Your task to perform on an android device: change keyboard looks Image 0: 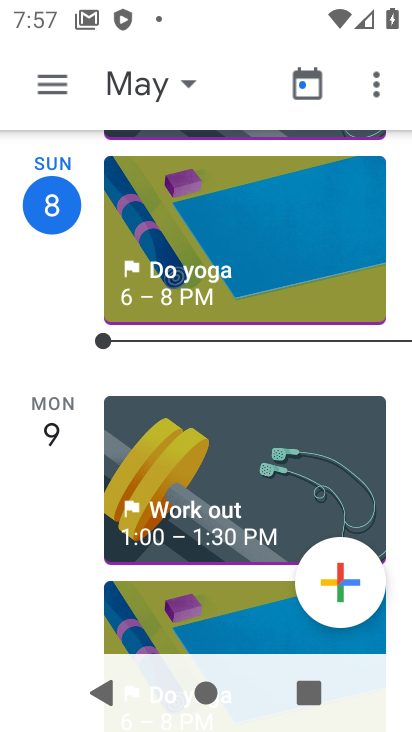
Step 0: press back button
Your task to perform on an android device: change keyboard looks Image 1: 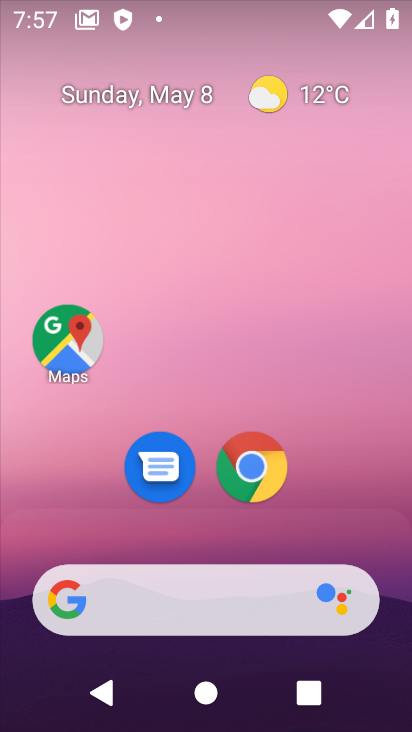
Step 1: drag from (234, 527) to (291, 86)
Your task to perform on an android device: change keyboard looks Image 2: 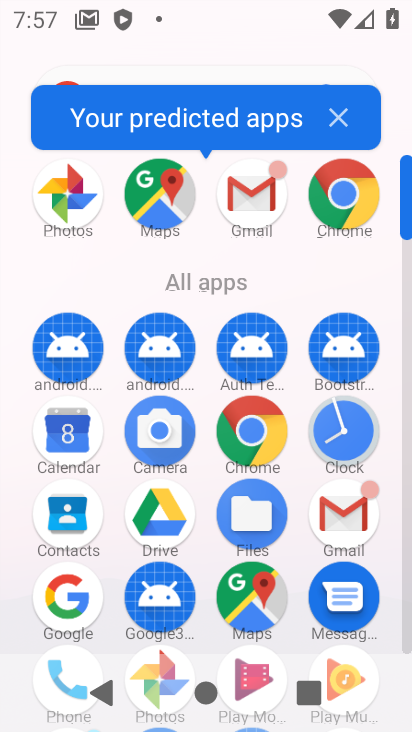
Step 2: drag from (193, 610) to (295, 76)
Your task to perform on an android device: change keyboard looks Image 3: 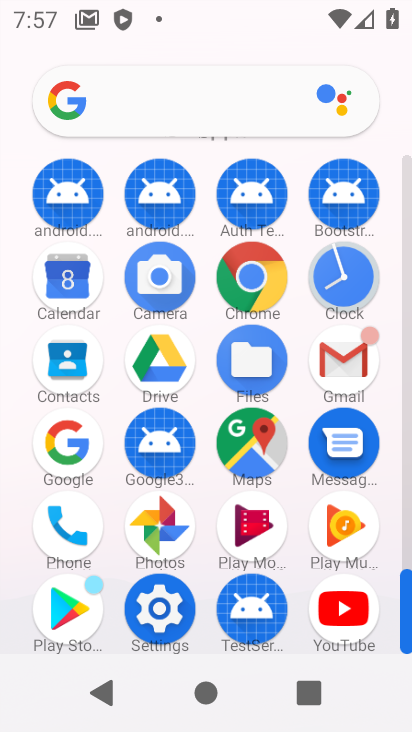
Step 3: click (151, 603)
Your task to perform on an android device: change keyboard looks Image 4: 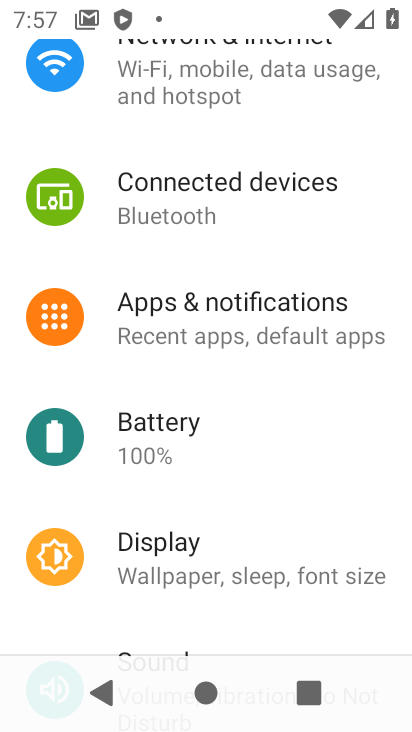
Step 4: drag from (152, 601) to (285, 56)
Your task to perform on an android device: change keyboard looks Image 5: 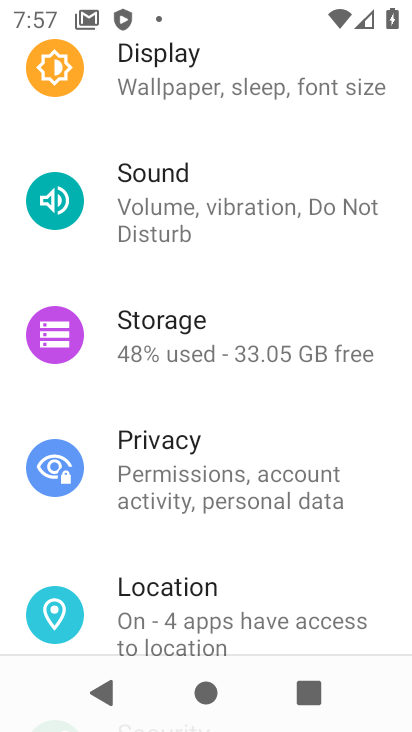
Step 5: drag from (216, 636) to (318, 82)
Your task to perform on an android device: change keyboard looks Image 6: 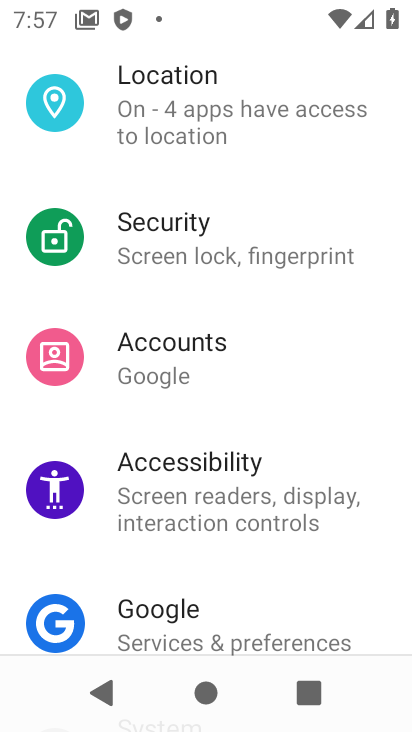
Step 6: drag from (185, 605) to (298, 38)
Your task to perform on an android device: change keyboard looks Image 7: 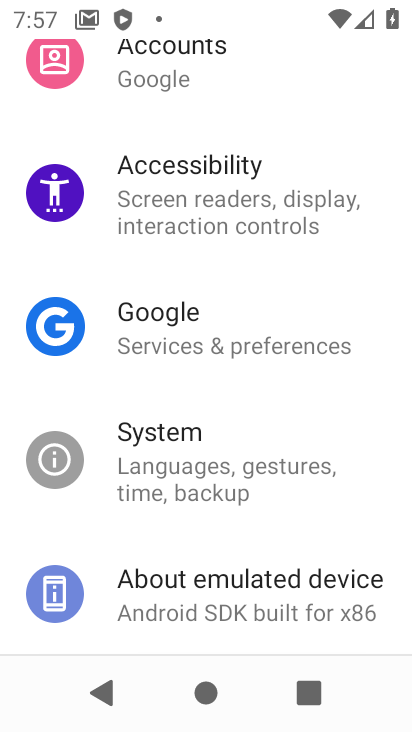
Step 7: drag from (153, 594) to (247, 39)
Your task to perform on an android device: change keyboard looks Image 8: 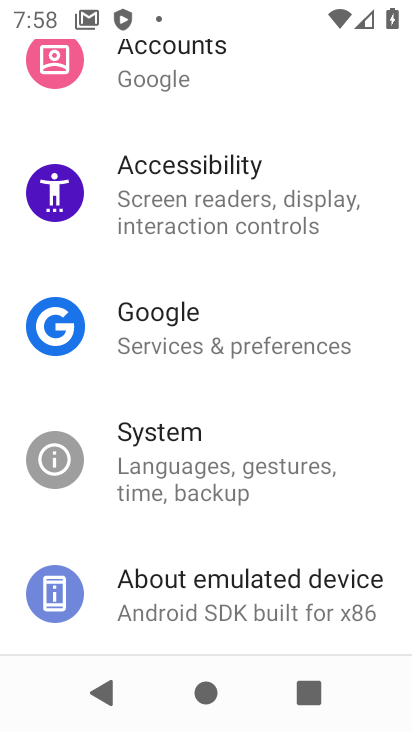
Step 8: click (181, 457)
Your task to perform on an android device: change keyboard looks Image 9: 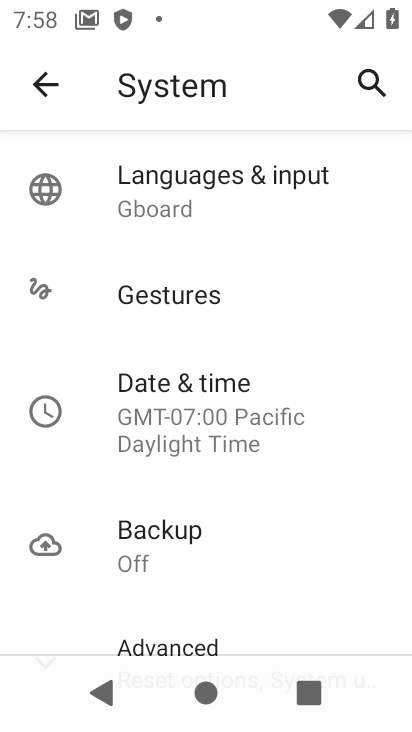
Step 9: click (221, 193)
Your task to perform on an android device: change keyboard looks Image 10: 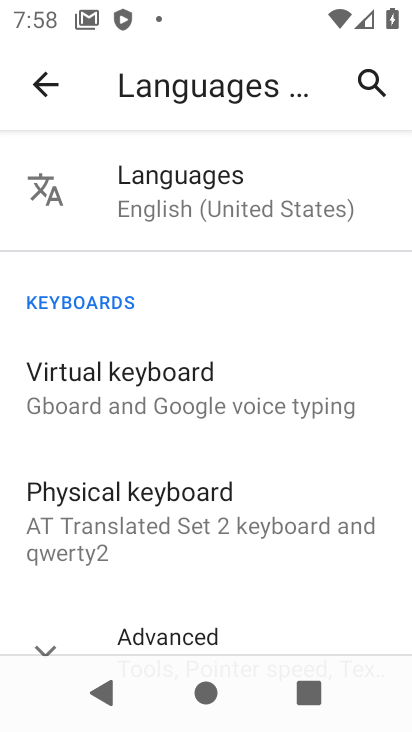
Step 10: click (176, 395)
Your task to perform on an android device: change keyboard looks Image 11: 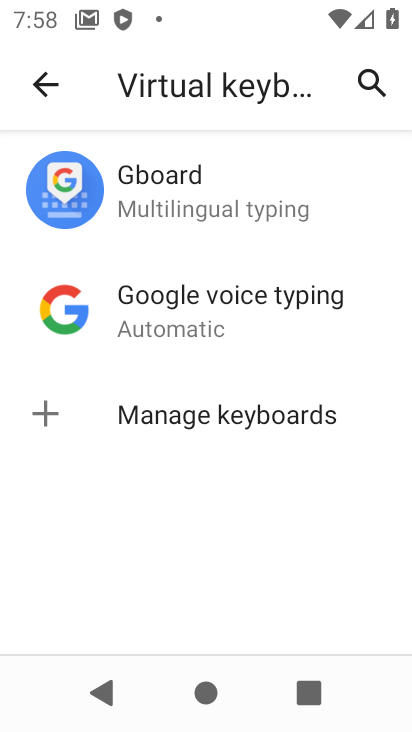
Step 11: click (190, 177)
Your task to perform on an android device: change keyboard looks Image 12: 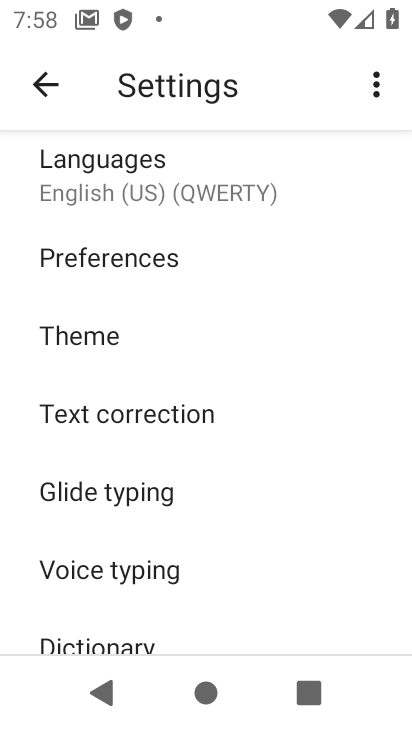
Step 12: click (89, 334)
Your task to perform on an android device: change keyboard looks Image 13: 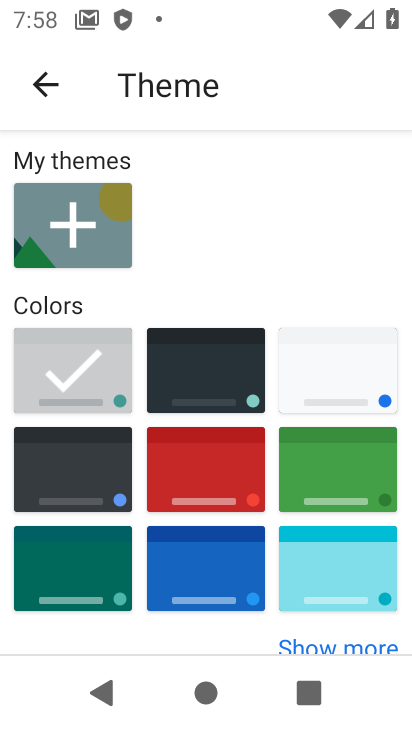
Step 13: click (206, 469)
Your task to perform on an android device: change keyboard looks Image 14: 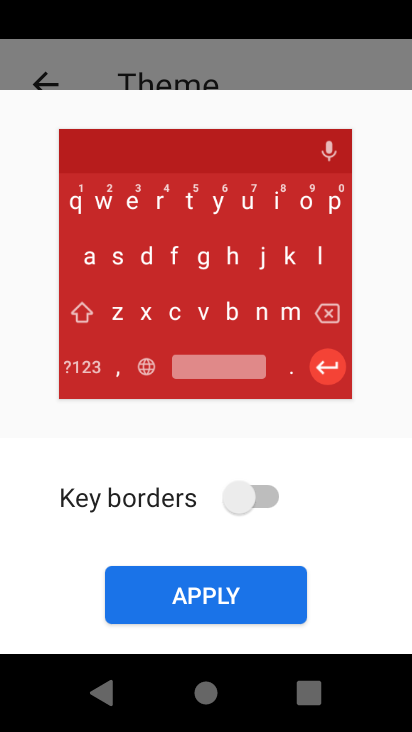
Step 14: click (210, 594)
Your task to perform on an android device: change keyboard looks Image 15: 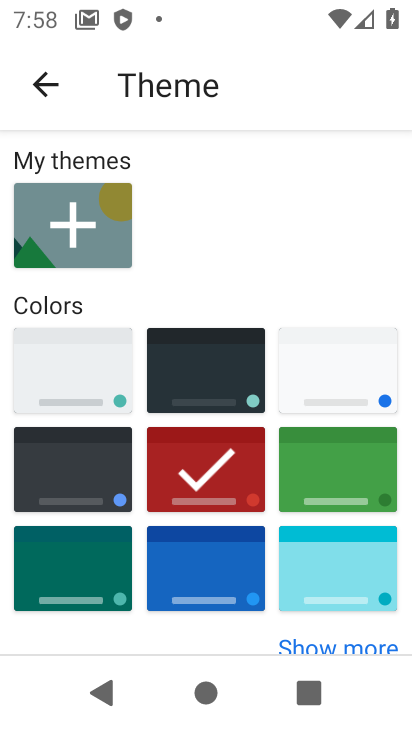
Step 15: task complete